Your task to perform on an android device: What is the recent news? Image 0: 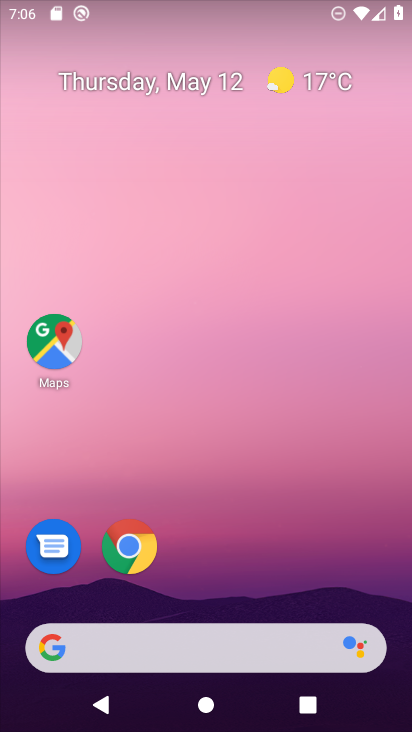
Step 0: drag from (10, 225) to (409, 290)
Your task to perform on an android device: What is the recent news? Image 1: 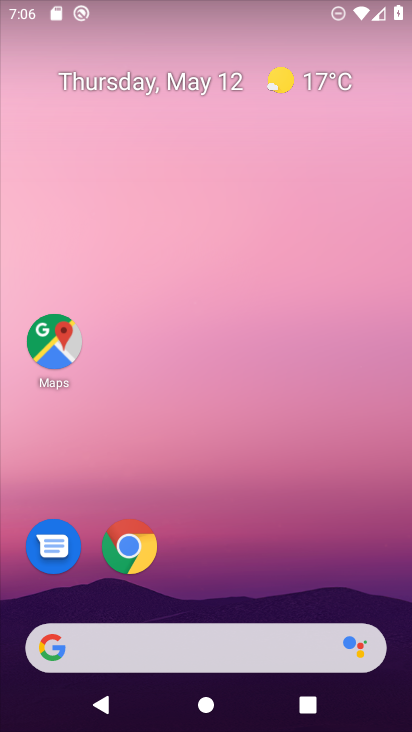
Step 1: task complete